Your task to perform on an android device: change alarm snooze length Image 0: 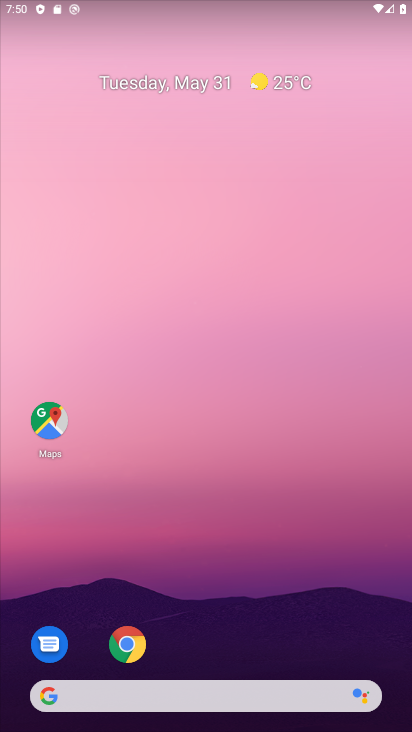
Step 0: click (216, 184)
Your task to perform on an android device: change alarm snooze length Image 1: 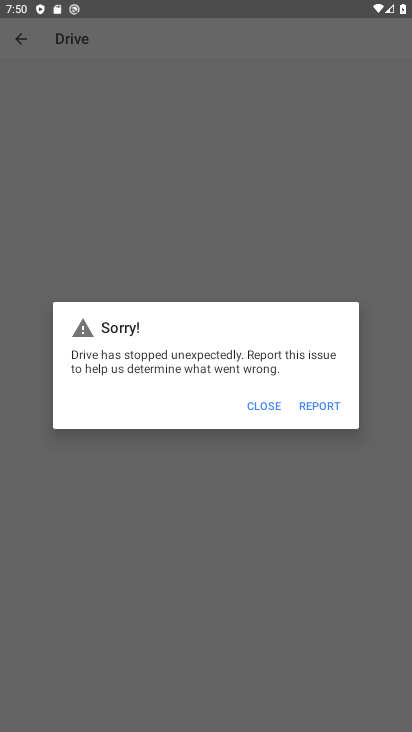
Step 1: press home button
Your task to perform on an android device: change alarm snooze length Image 2: 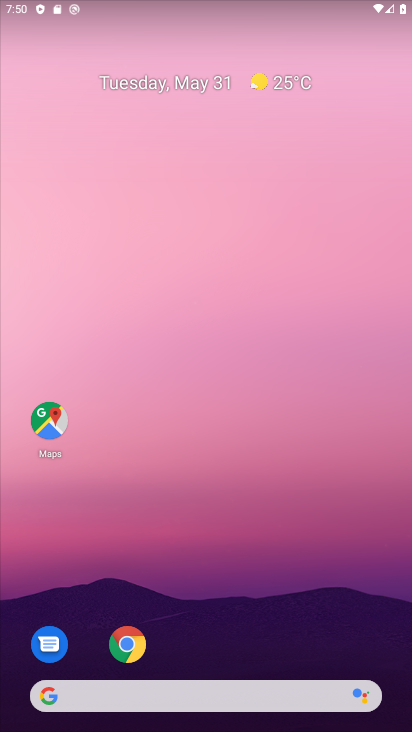
Step 2: drag from (217, 718) to (149, 8)
Your task to perform on an android device: change alarm snooze length Image 3: 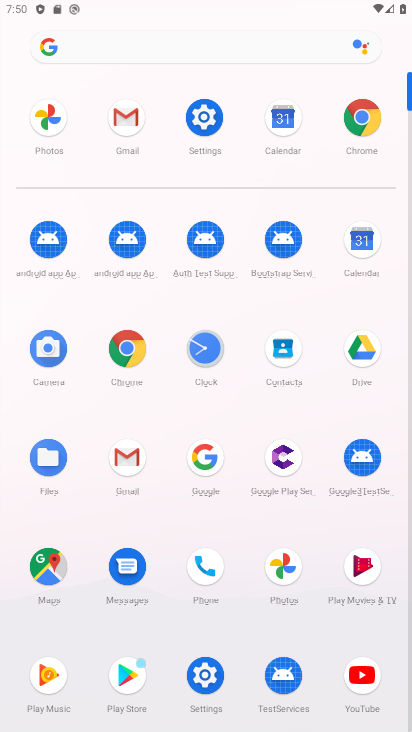
Step 3: click (193, 350)
Your task to perform on an android device: change alarm snooze length Image 4: 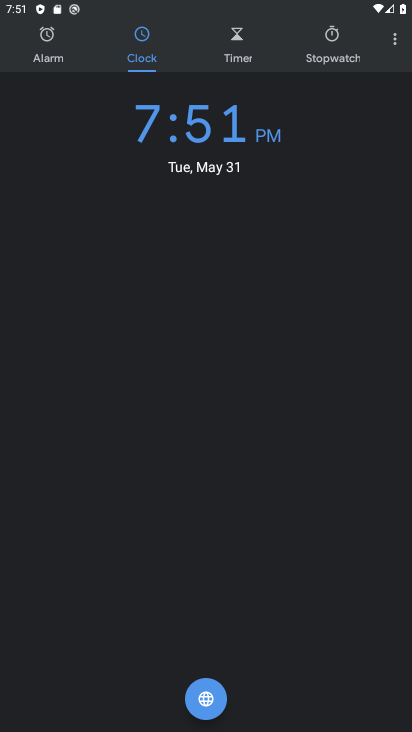
Step 4: click (384, 45)
Your task to perform on an android device: change alarm snooze length Image 5: 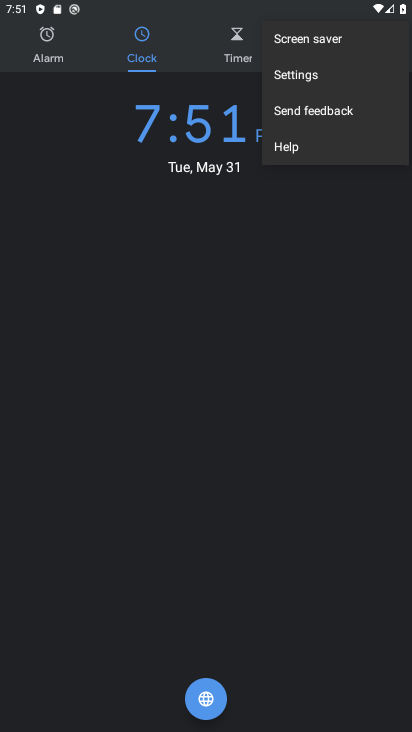
Step 5: click (326, 79)
Your task to perform on an android device: change alarm snooze length Image 6: 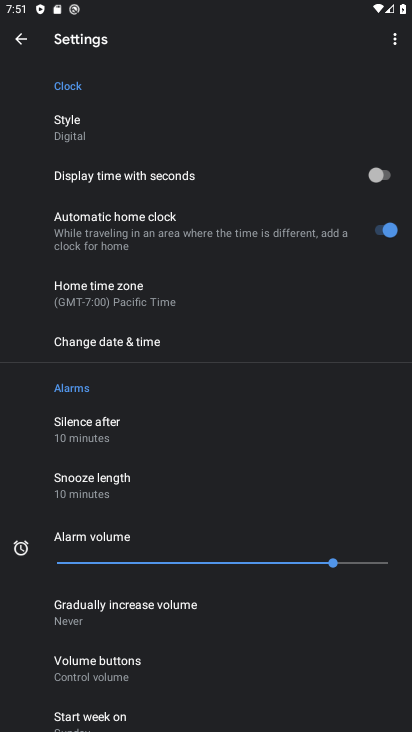
Step 6: click (128, 469)
Your task to perform on an android device: change alarm snooze length Image 7: 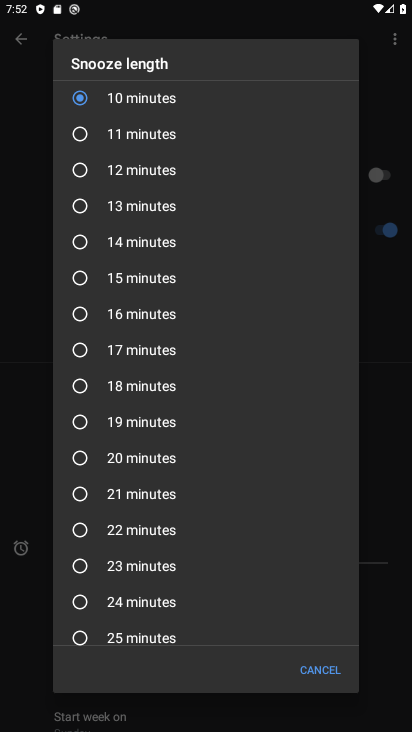
Step 7: click (133, 372)
Your task to perform on an android device: change alarm snooze length Image 8: 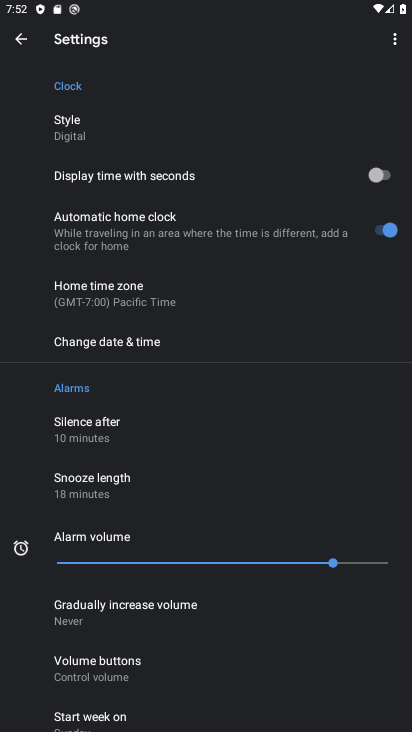
Step 8: task complete